Your task to perform on an android device: change notifications settings Image 0: 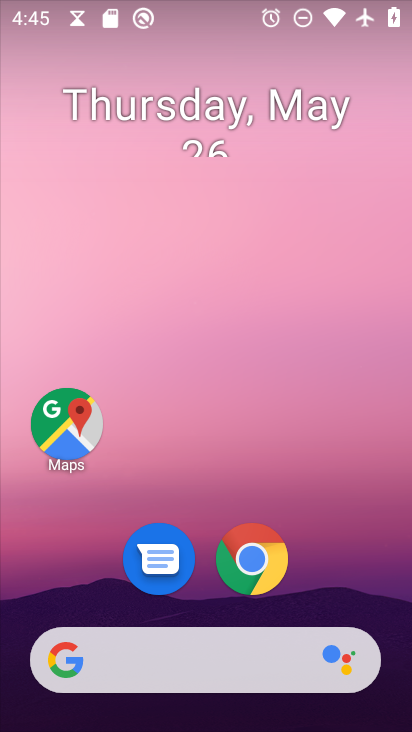
Step 0: drag from (317, 329) to (226, 49)
Your task to perform on an android device: change notifications settings Image 1: 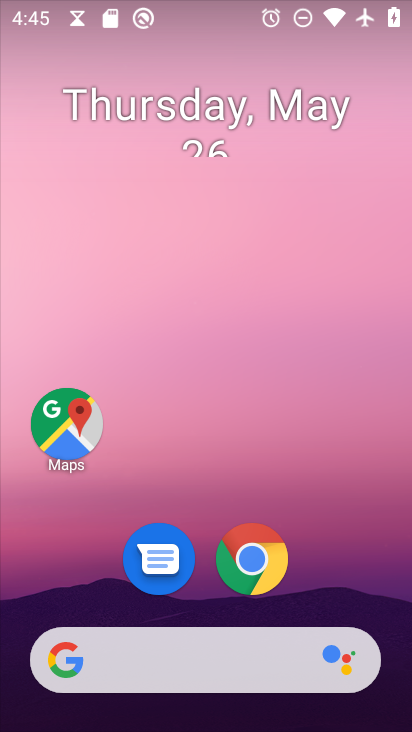
Step 1: drag from (346, 435) to (191, 18)
Your task to perform on an android device: change notifications settings Image 2: 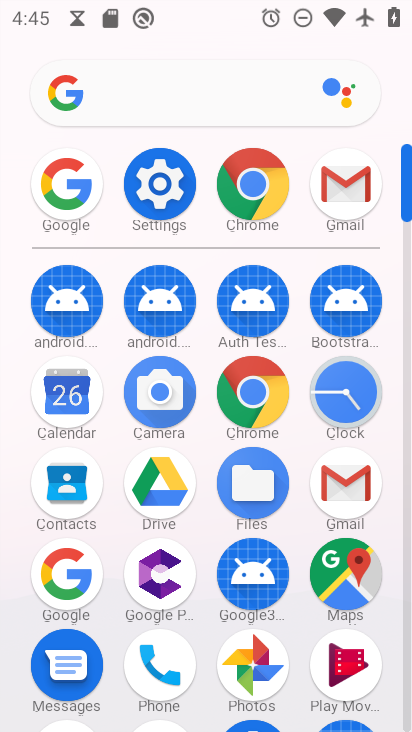
Step 2: click (160, 212)
Your task to perform on an android device: change notifications settings Image 3: 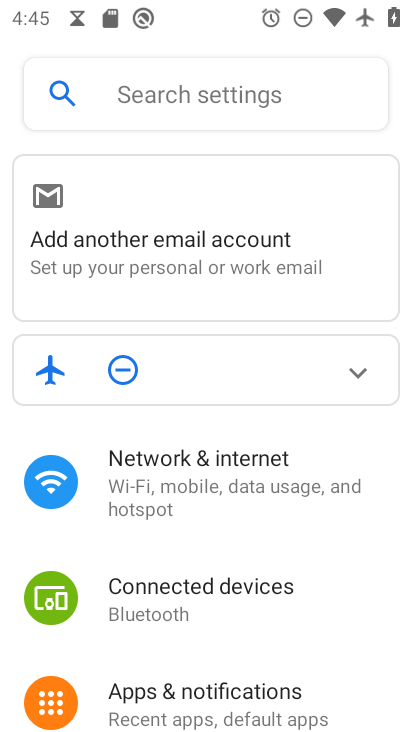
Step 3: click (224, 592)
Your task to perform on an android device: change notifications settings Image 4: 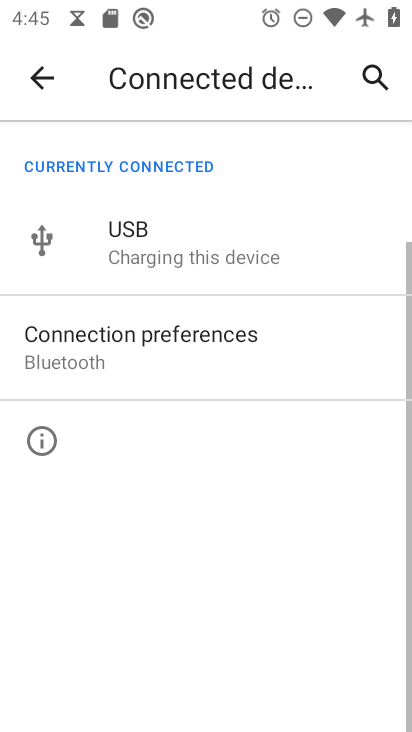
Step 4: press back button
Your task to perform on an android device: change notifications settings Image 5: 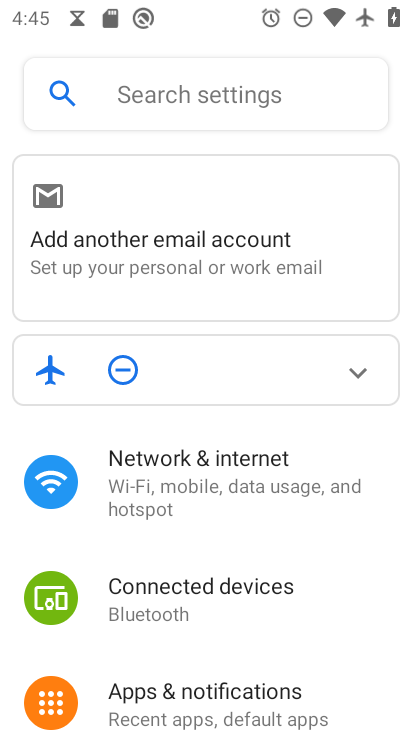
Step 5: click (258, 693)
Your task to perform on an android device: change notifications settings Image 6: 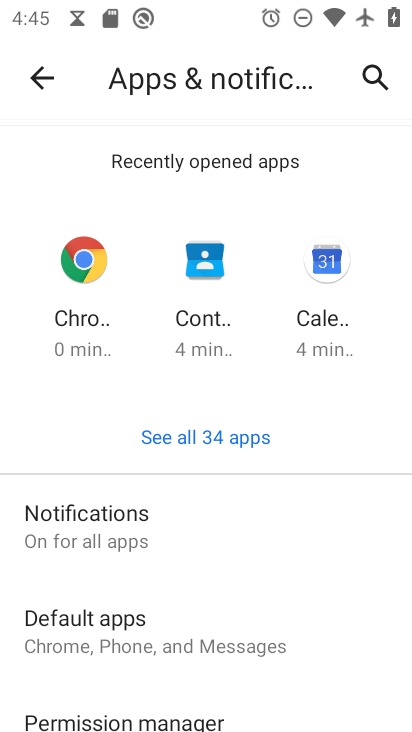
Step 6: click (264, 522)
Your task to perform on an android device: change notifications settings Image 7: 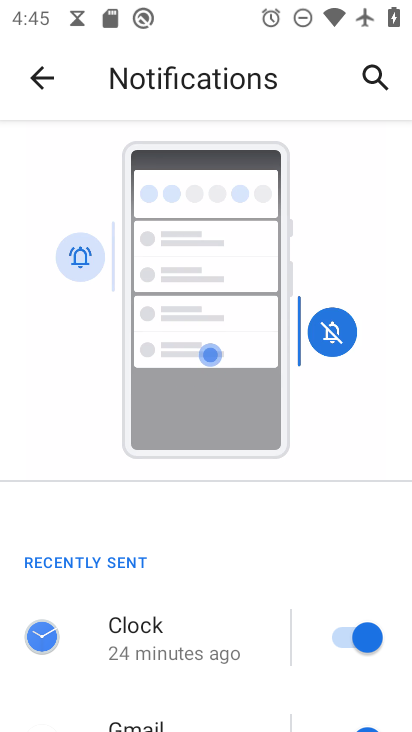
Step 7: drag from (340, 556) to (311, 138)
Your task to perform on an android device: change notifications settings Image 8: 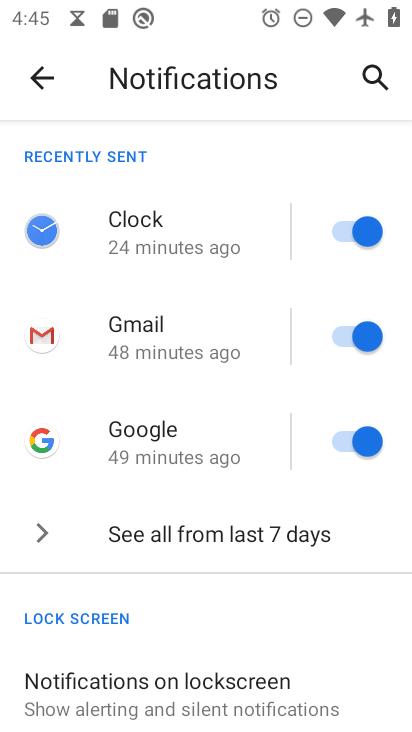
Step 8: click (352, 218)
Your task to perform on an android device: change notifications settings Image 9: 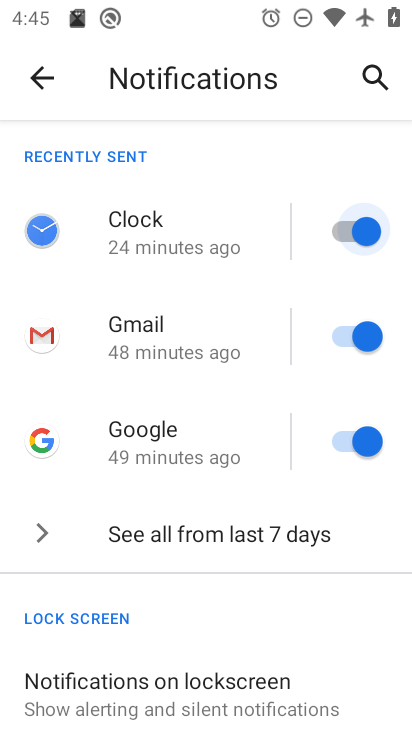
Step 9: click (348, 331)
Your task to perform on an android device: change notifications settings Image 10: 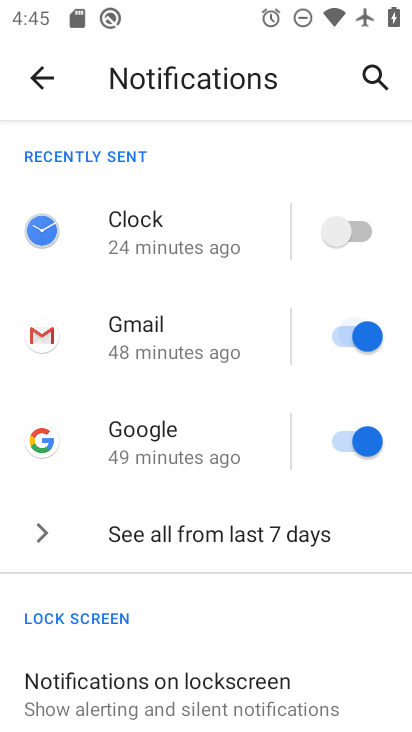
Step 10: click (355, 424)
Your task to perform on an android device: change notifications settings Image 11: 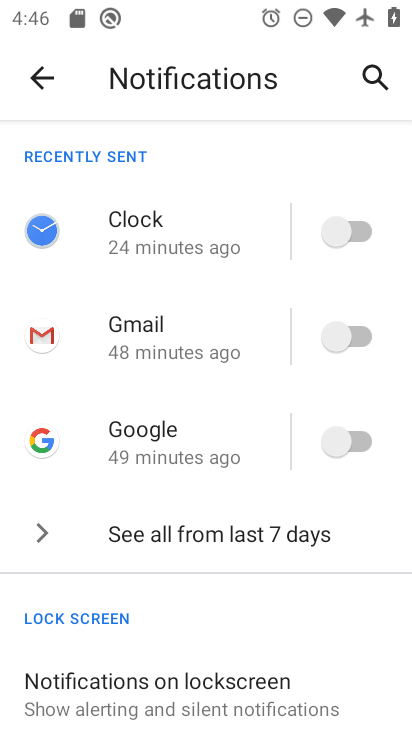
Step 11: task complete